Your task to perform on an android device: turn smart compose on in the gmail app Image 0: 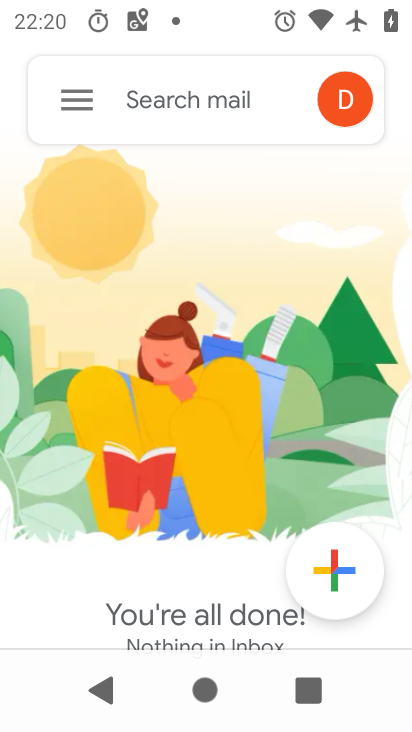
Step 0: press home button
Your task to perform on an android device: turn smart compose on in the gmail app Image 1: 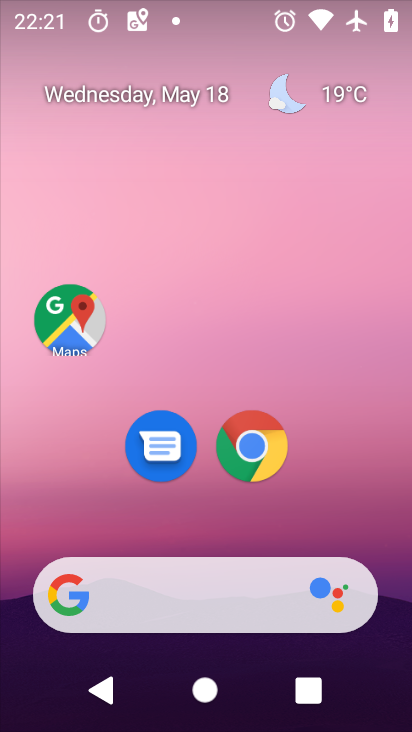
Step 1: drag from (155, 597) to (293, 123)
Your task to perform on an android device: turn smart compose on in the gmail app Image 2: 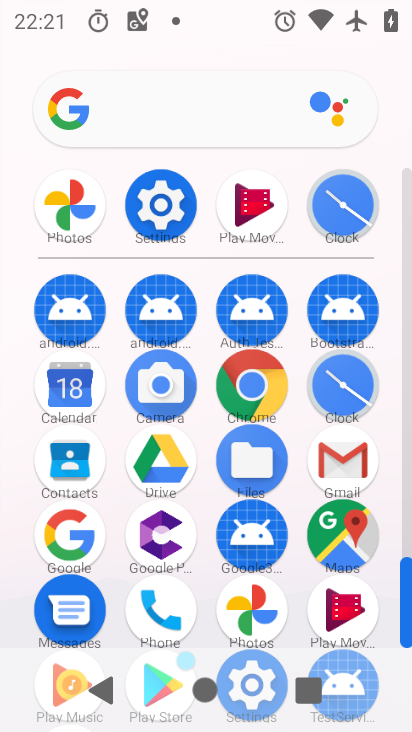
Step 2: click (346, 459)
Your task to perform on an android device: turn smart compose on in the gmail app Image 3: 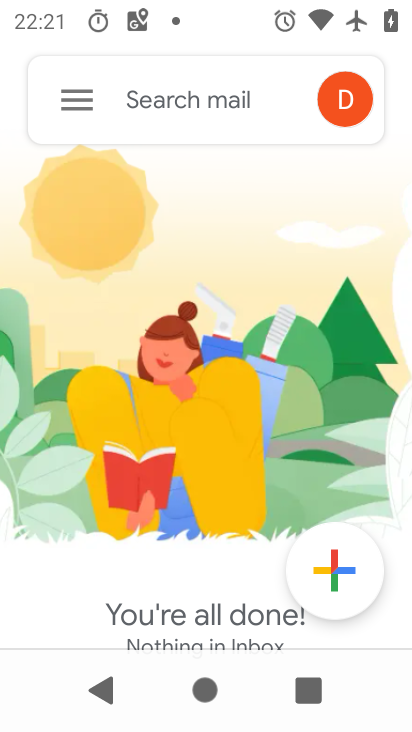
Step 3: click (86, 102)
Your task to perform on an android device: turn smart compose on in the gmail app Image 4: 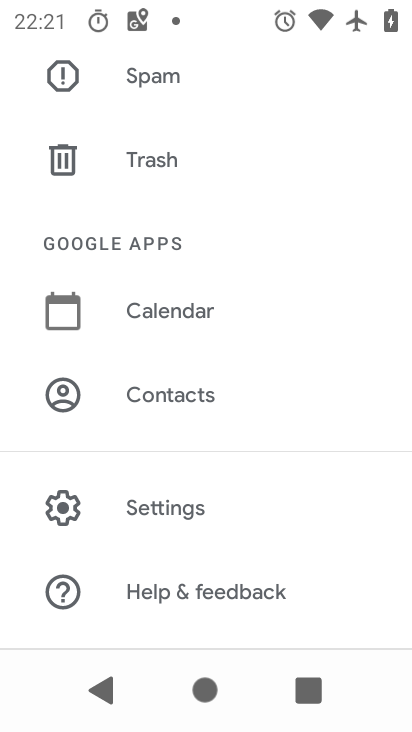
Step 4: click (178, 508)
Your task to perform on an android device: turn smart compose on in the gmail app Image 5: 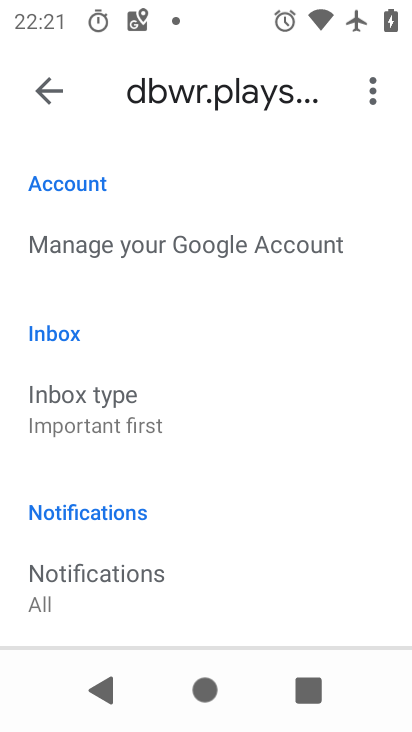
Step 5: task complete